Your task to perform on an android device: Open my contact list Image 0: 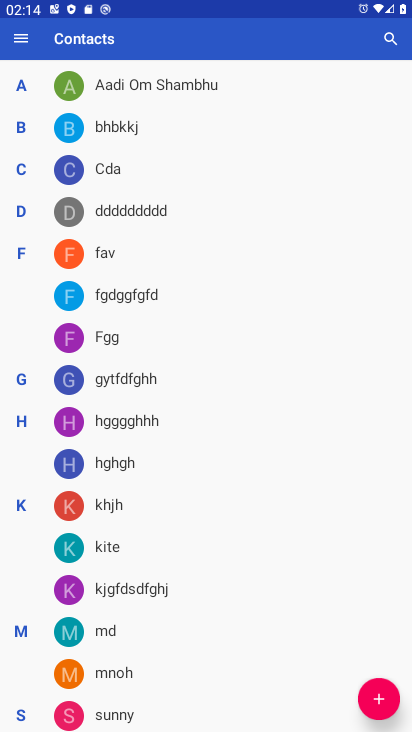
Step 0: drag from (222, 663) to (193, 292)
Your task to perform on an android device: Open my contact list Image 1: 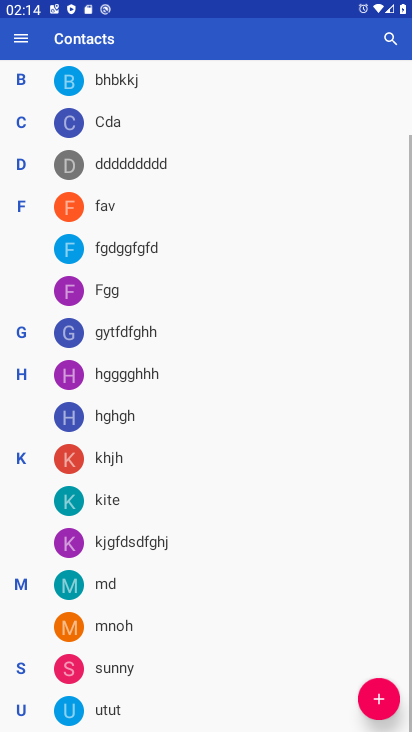
Step 1: task complete